Your task to perform on an android device: turn off translation in the chrome app Image 0: 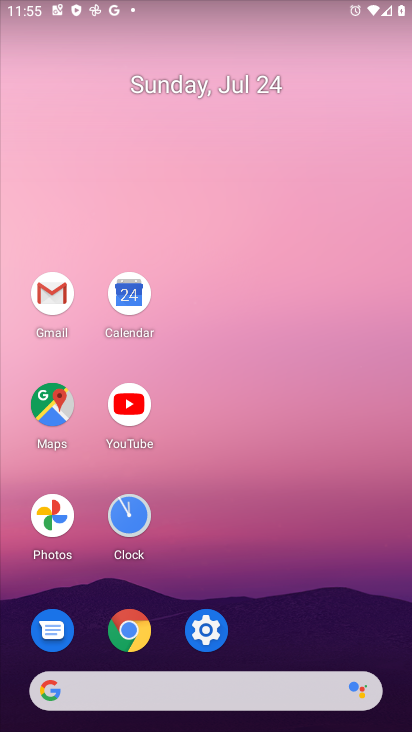
Step 0: click (130, 635)
Your task to perform on an android device: turn off translation in the chrome app Image 1: 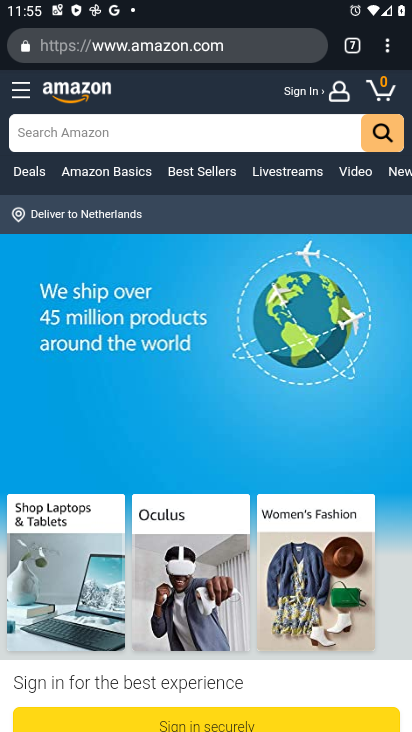
Step 1: click (395, 54)
Your task to perform on an android device: turn off translation in the chrome app Image 2: 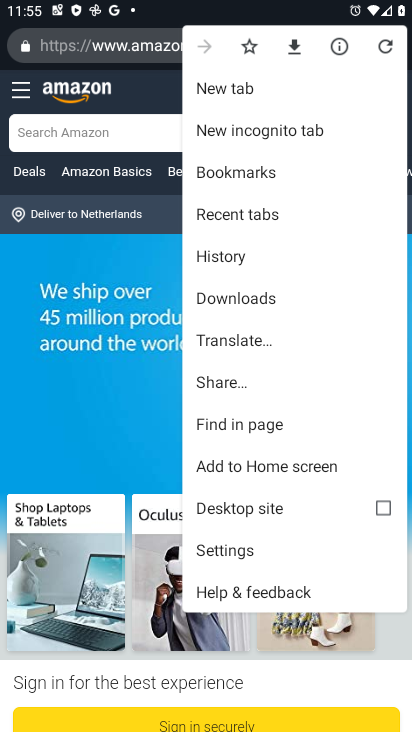
Step 2: click (222, 542)
Your task to perform on an android device: turn off translation in the chrome app Image 3: 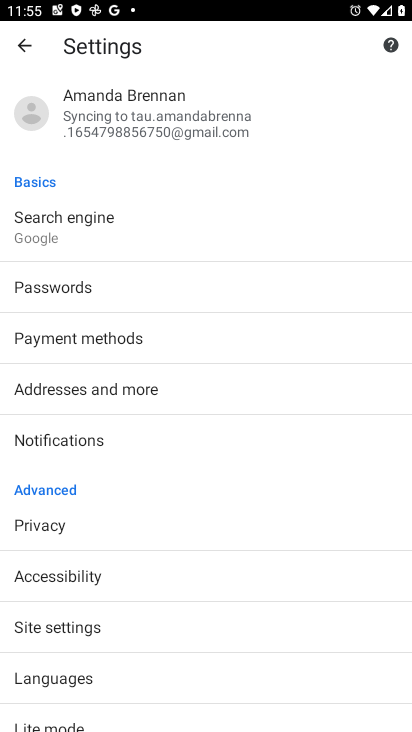
Step 3: click (78, 674)
Your task to perform on an android device: turn off translation in the chrome app Image 4: 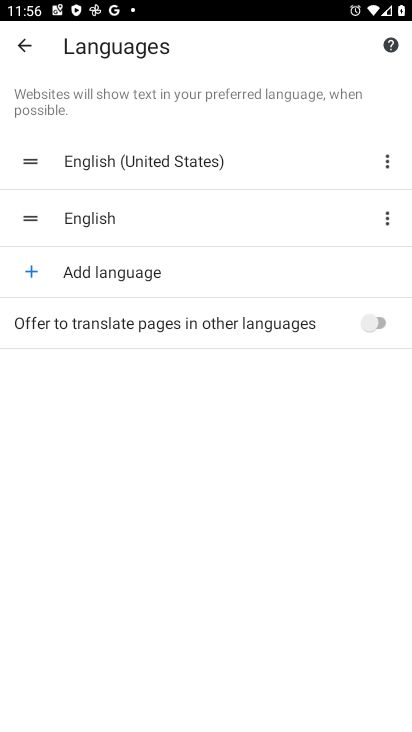
Step 4: task complete